Your task to perform on an android device: turn pop-ups off in chrome Image 0: 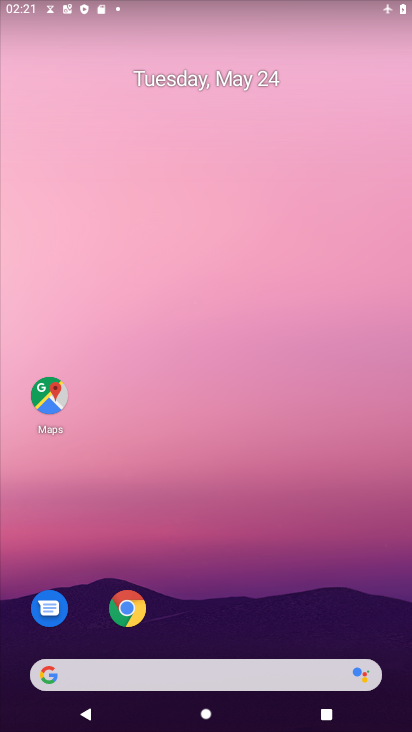
Step 0: drag from (254, 646) to (184, 192)
Your task to perform on an android device: turn pop-ups off in chrome Image 1: 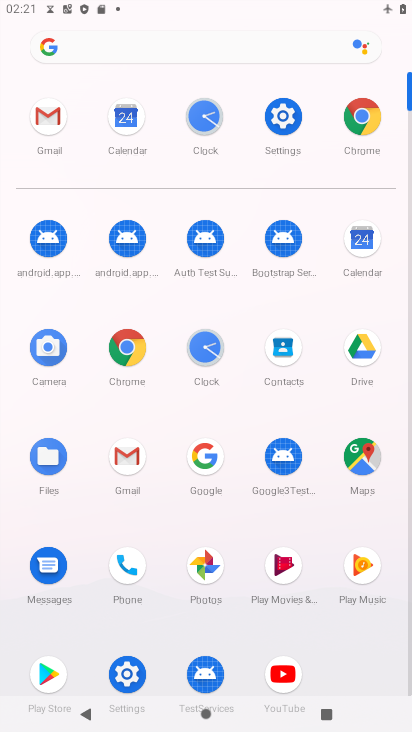
Step 1: click (362, 120)
Your task to perform on an android device: turn pop-ups off in chrome Image 2: 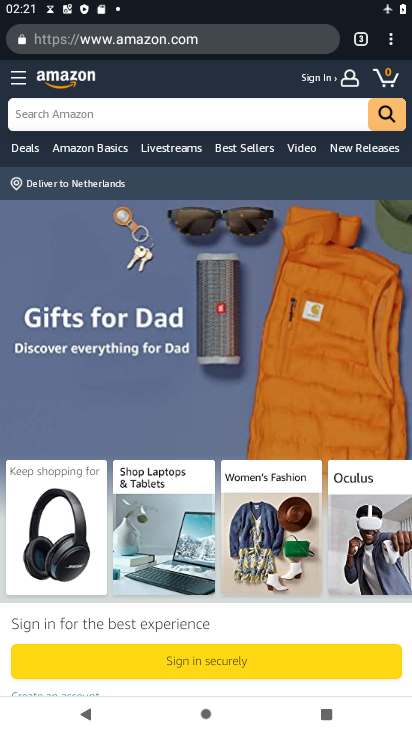
Step 2: click (396, 45)
Your task to perform on an android device: turn pop-ups off in chrome Image 3: 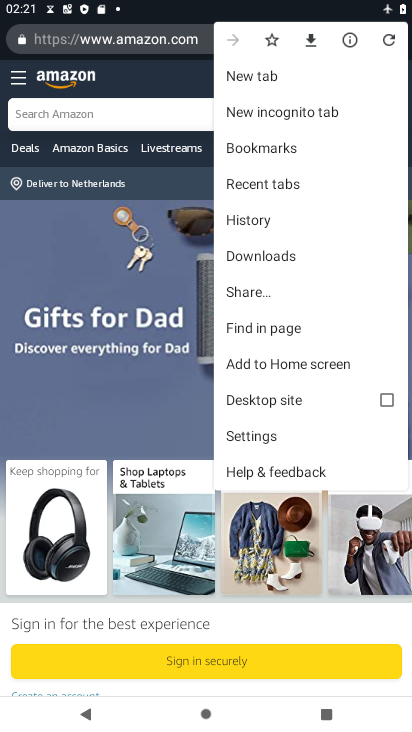
Step 3: click (319, 437)
Your task to perform on an android device: turn pop-ups off in chrome Image 4: 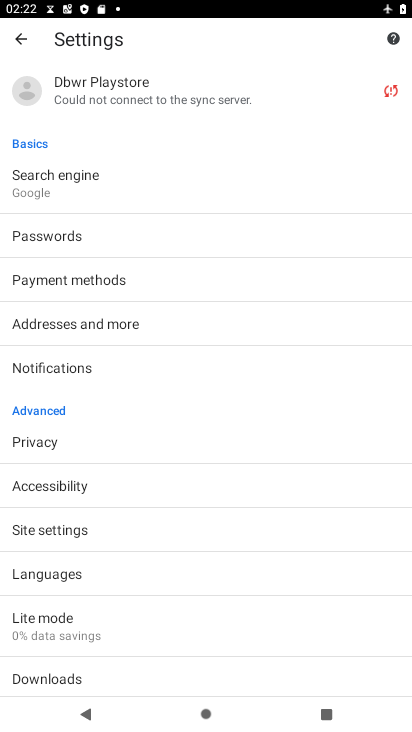
Step 4: click (257, 526)
Your task to perform on an android device: turn pop-ups off in chrome Image 5: 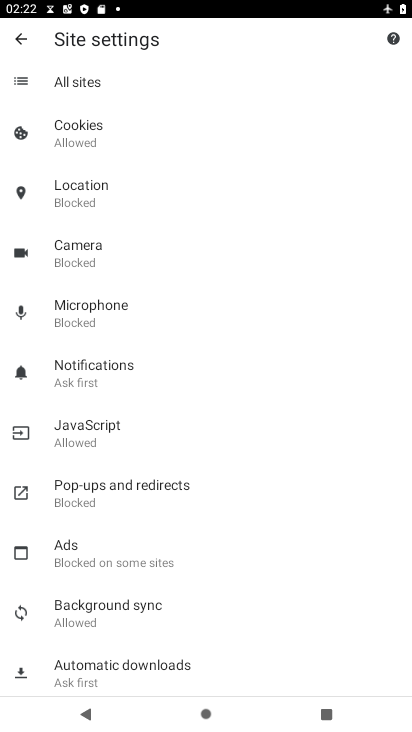
Step 5: click (240, 501)
Your task to perform on an android device: turn pop-ups off in chrome Image 6: 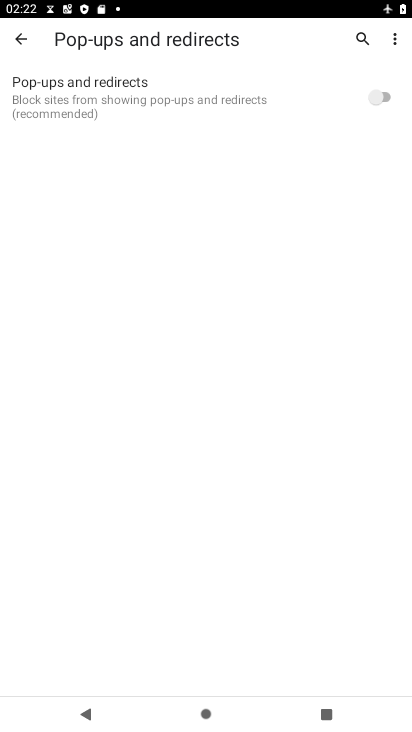
Step 6: task complete